Your task to perform on an android device: Is it going to rain today? Image 0: 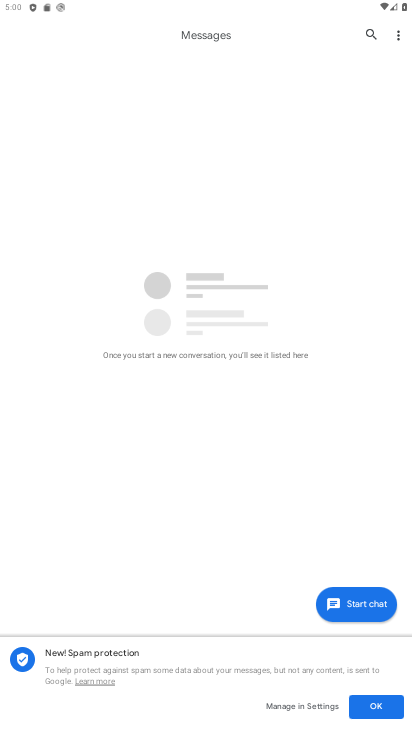
Step 0: press home button
Your task to perform on an android device: Is it going to rain today? Image 1: 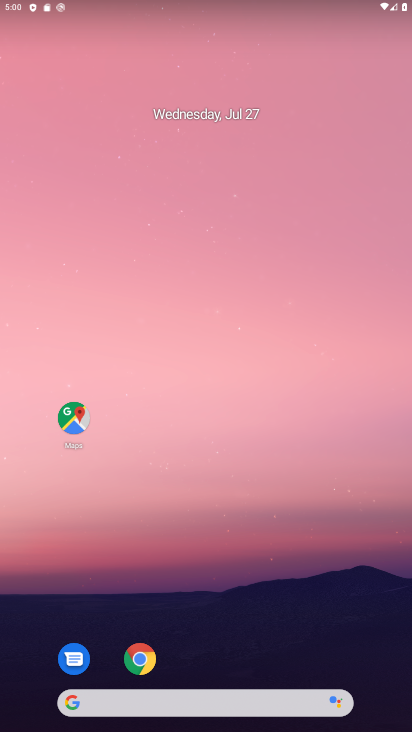
Step 1: drag from (222, 590) to (289, 140)
Your task to perform on an android device: Is it going to rain today? Image 2: 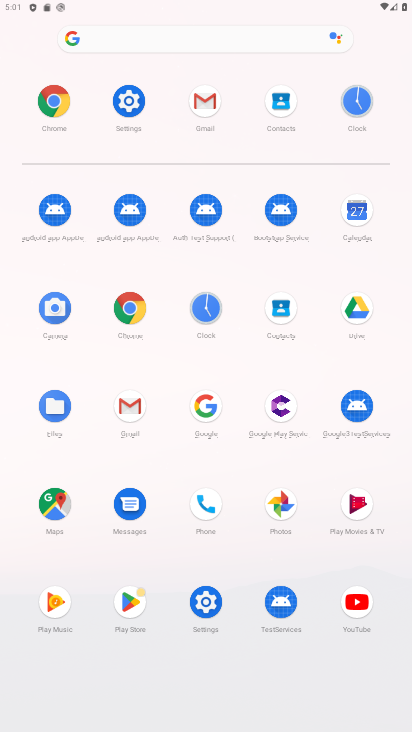
Step 2: click (120, 308)
Your task to perform on an android device: Is it going to rain today? Image 3: 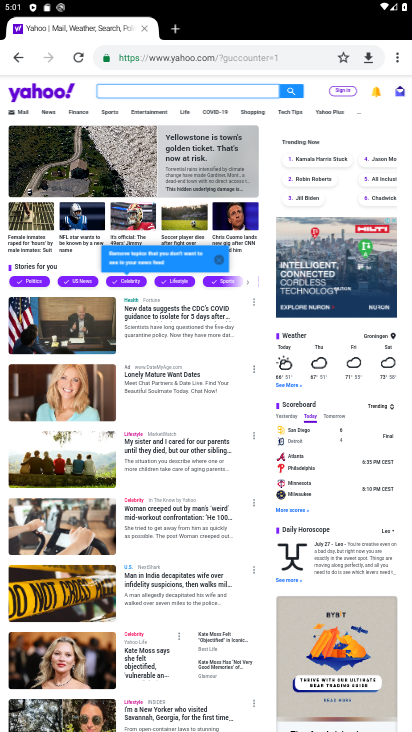
Step 3: click (164, 54)
Your task to perform on an android device: Is it going to rain today? Image 4: 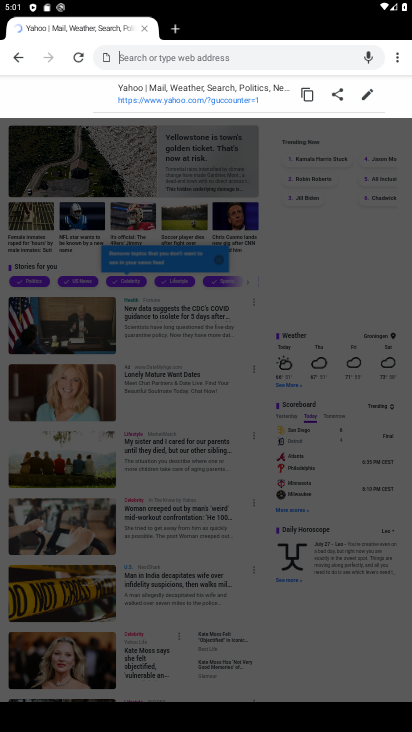
Step 4: type "Is it going to rain today?"
Your task to perform on an android device: Is it going to rain today? Image 5: 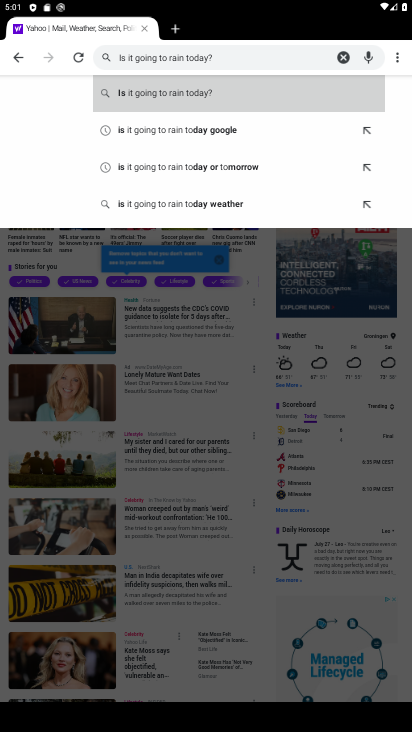
Step 5: click (188, 89)
Your task to perform on an android device: Is it going to rain today? Image 6: 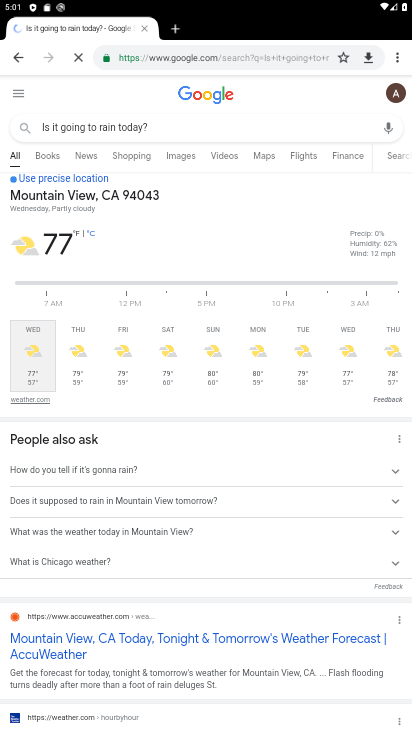
Step 6: task complete